Your task to perform on an android device: Open Chrome and go to settings Image 0: 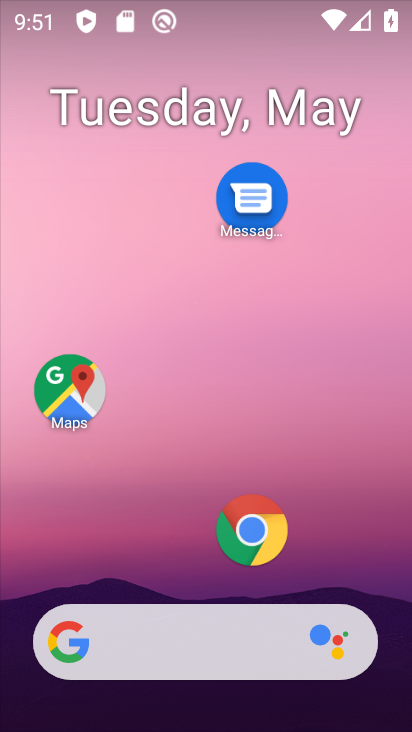
Step 0: drag from (205, 582) to (237, 1)
Your task to perform on an android device: Open Chrome and go to settings Image 1: 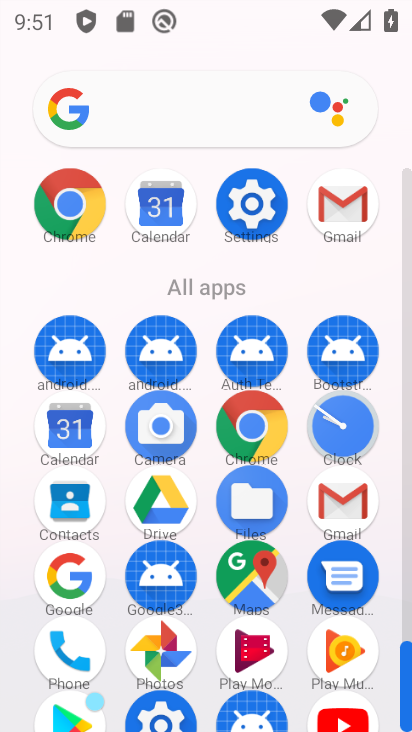
Step 1: click (86, 213)
Your task to perform on an android device: Open Chrome and go to settings Image 2: 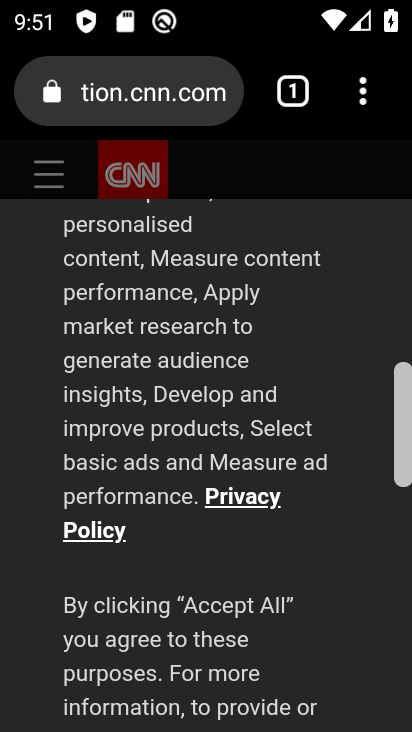
Step 2: click (353, 94)
Your task to perform on an android device: Open Chrome and go to settings Image 3: 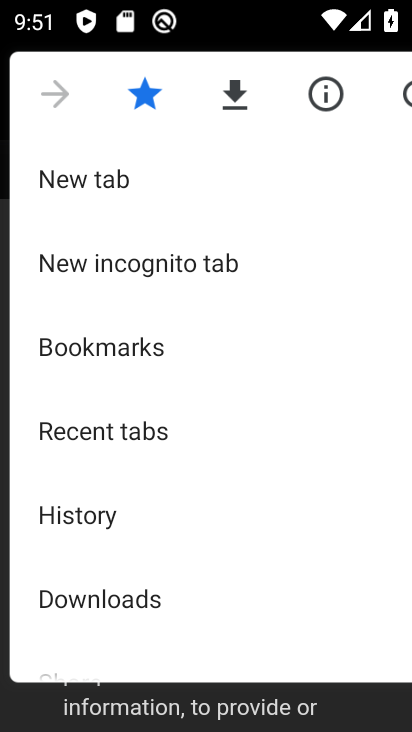
Step 3: drag from (174, 569) to (169, 41)
Your task to perform on an android device: Open Chrome and go to settings Image 4: 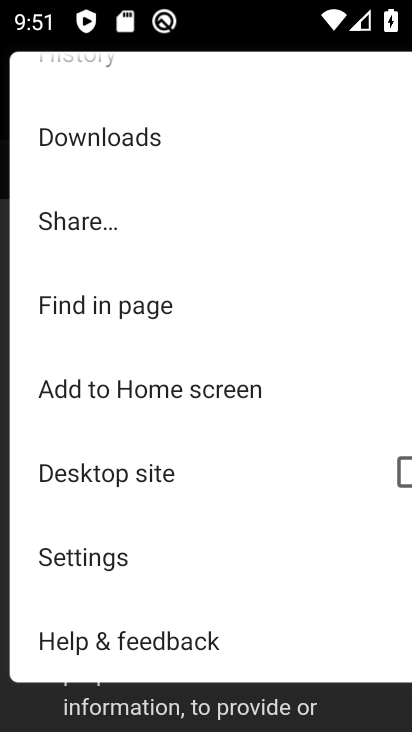
Step 4: click (127, 552)
Your task to perform on an android device: Open Chrome and go to settings Image 5: 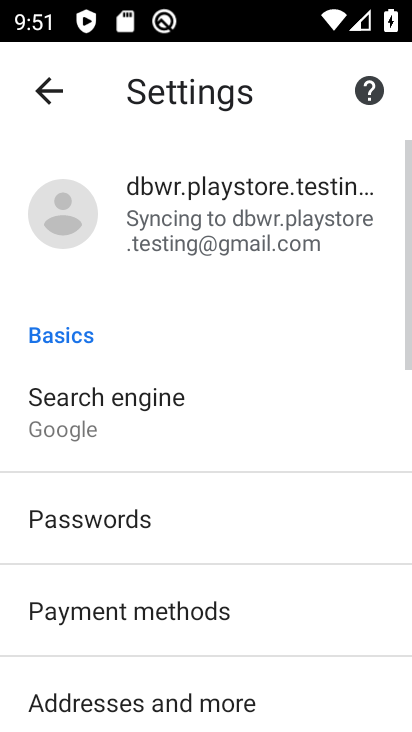
Step 5: task complete